Your task to perform on an android device: toggle javascript in the chrome app Image 0: 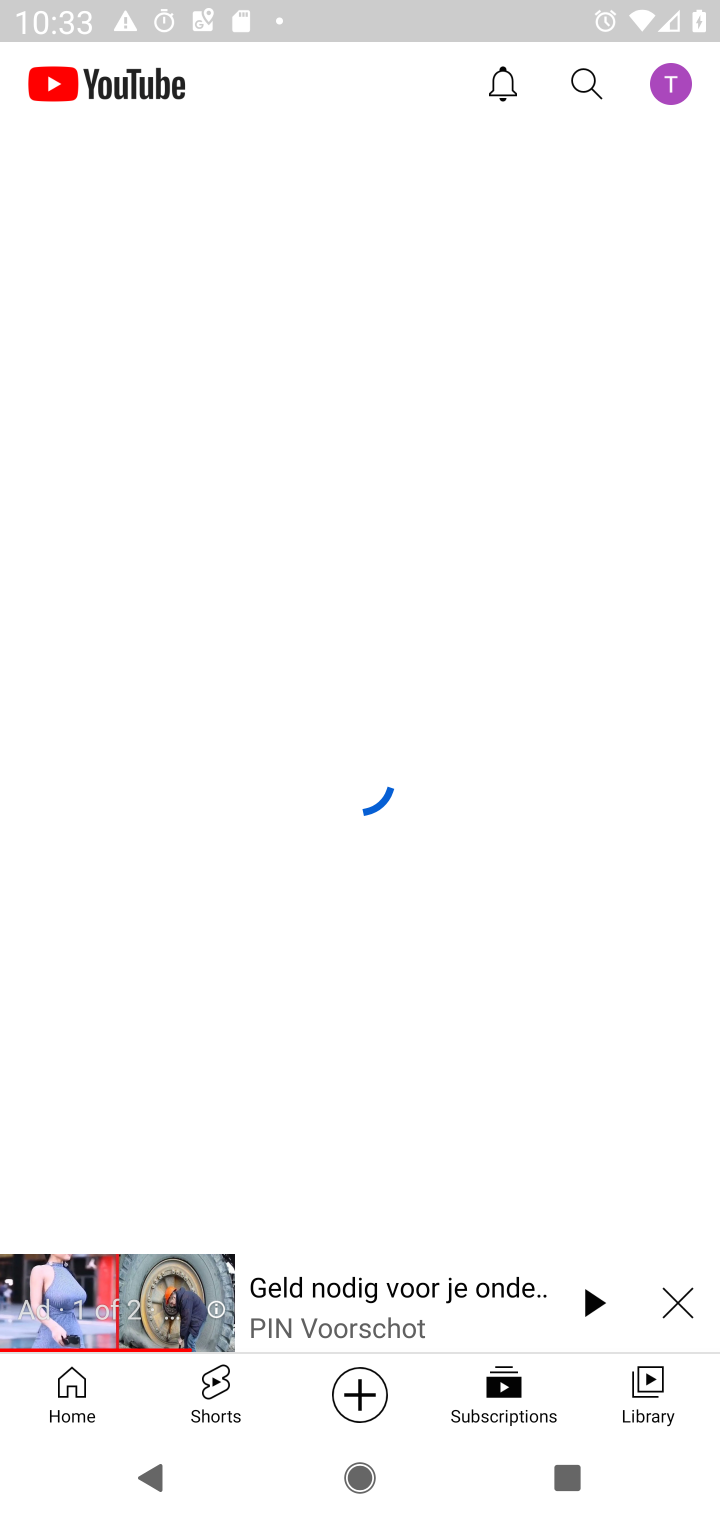
Step 0: press home button
Your task to perform on an android device: toggle javascript in the chrome app Image 1: 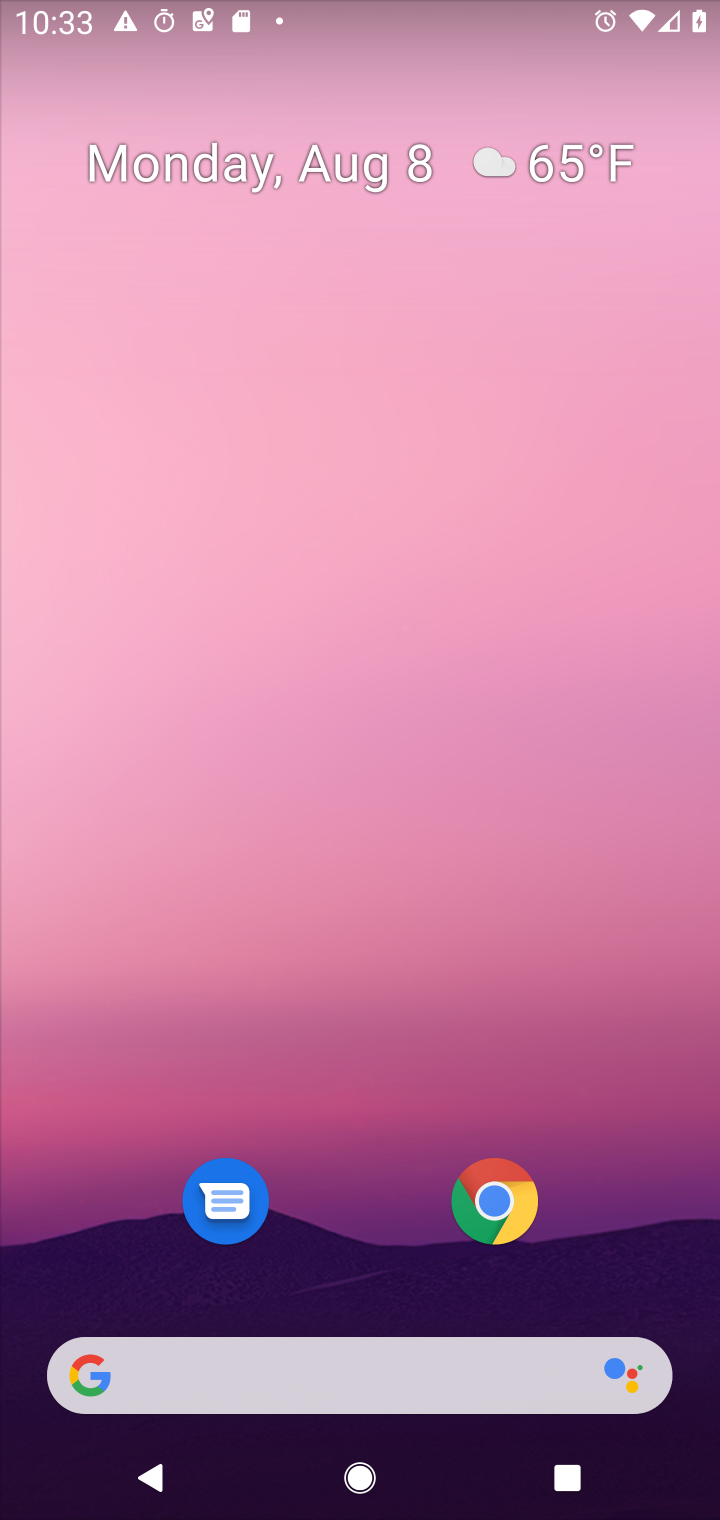
Step 1: drag from (364, 1177) to (362, 474)
Your task to perform on an android device: toggle javascript in the chrome app Image 2: 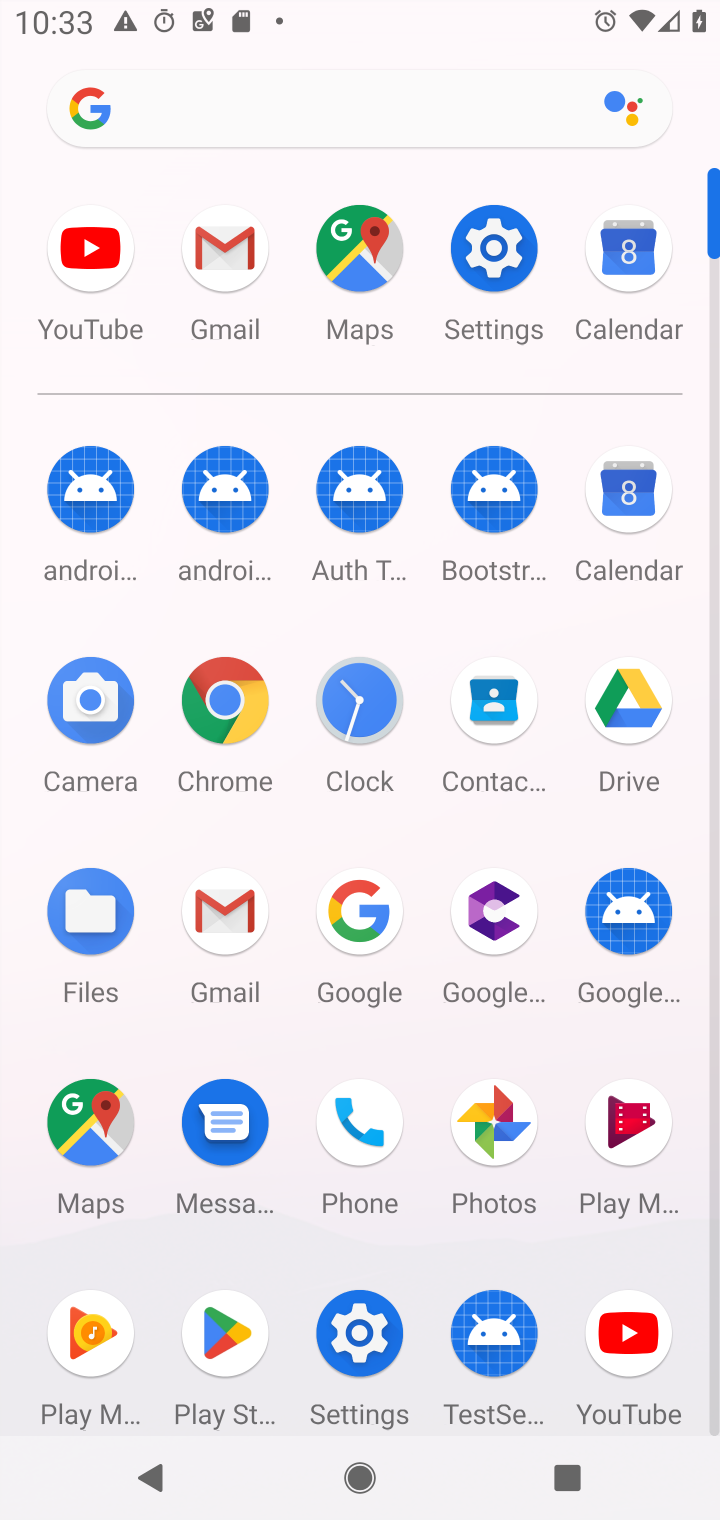
Step 2: click (233, 706)
Your task to perform on an android device: toggle javascript in the chrome app Image 3: 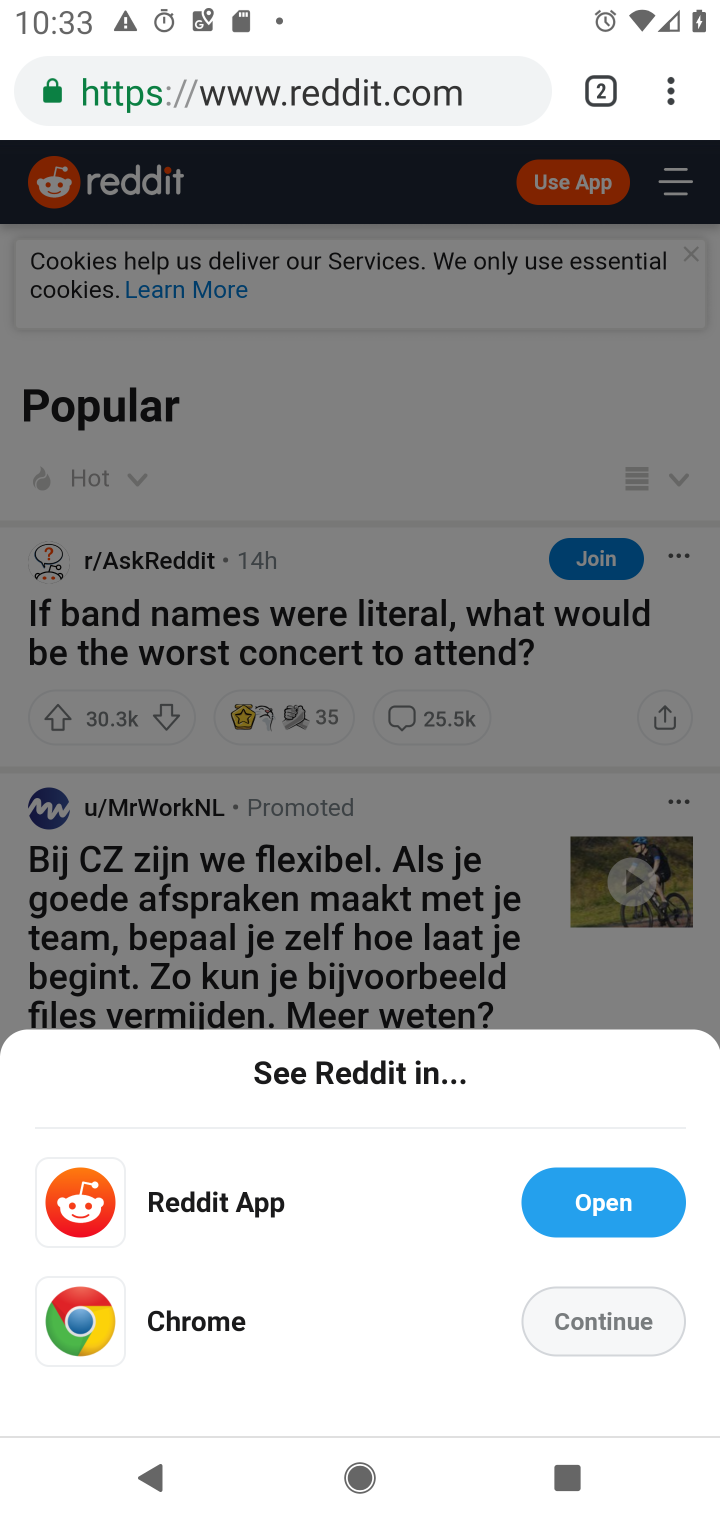
Step 3: click (669, 96)
Your task to perform on an android device: toggle javascript in the chrome app Image 4: 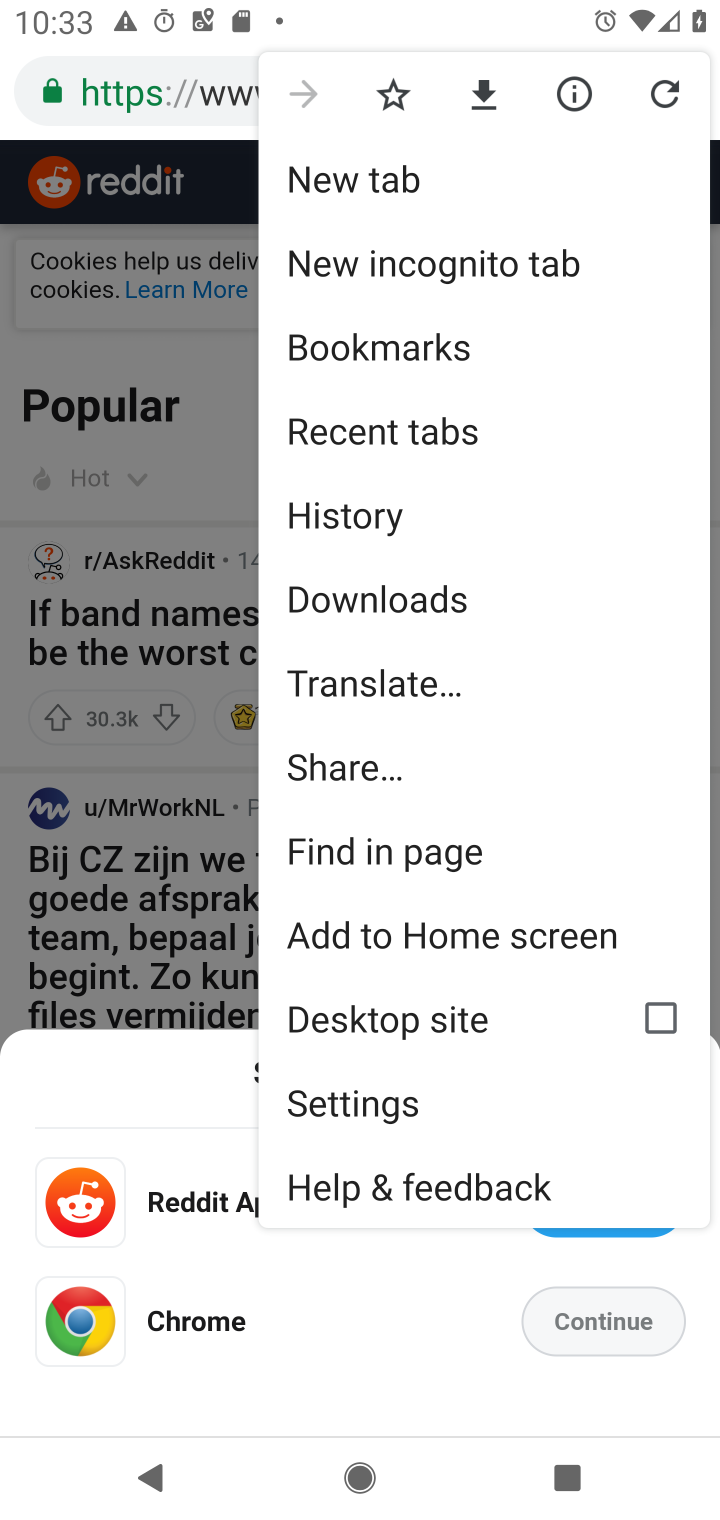
Step 4: click (395, 1096)
Your task to perform on an android device: toggle javascript in the chrome app Image 5: 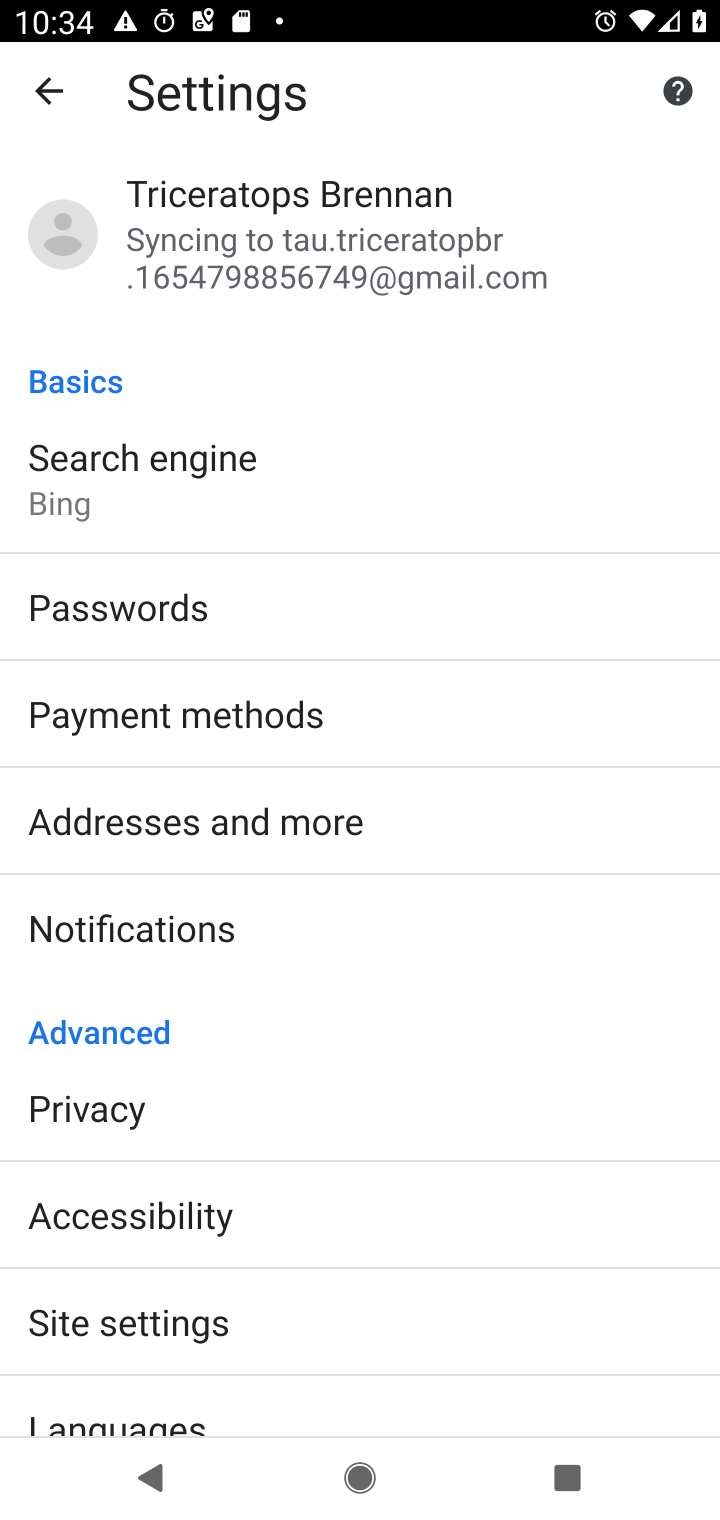
Step 5: click (302, 1323)
Your task to perform on an android device: toggle javascript in the chrome app Image 6: 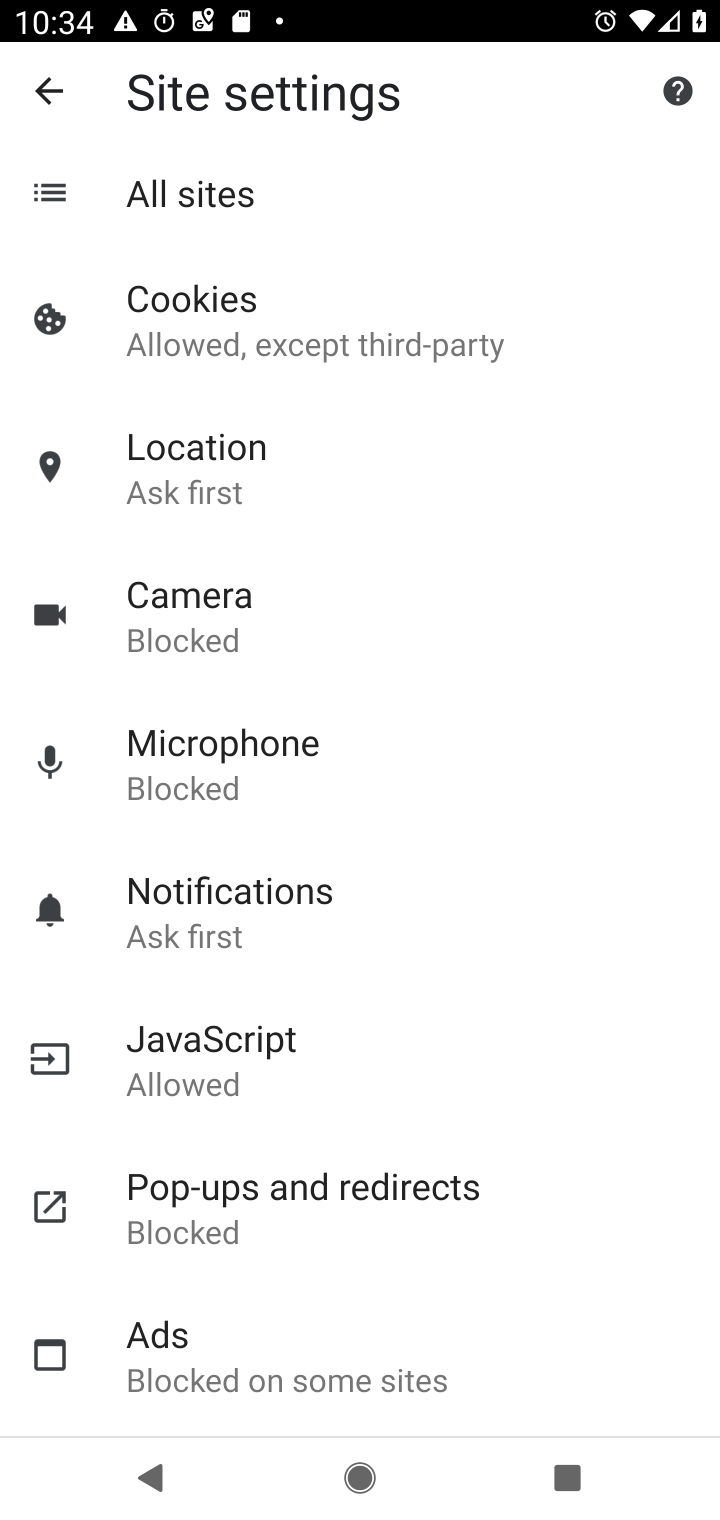
Step 6: click (381, 1038)
Your task to perform on an android device: toggle javascript in the chrome app Image 7: 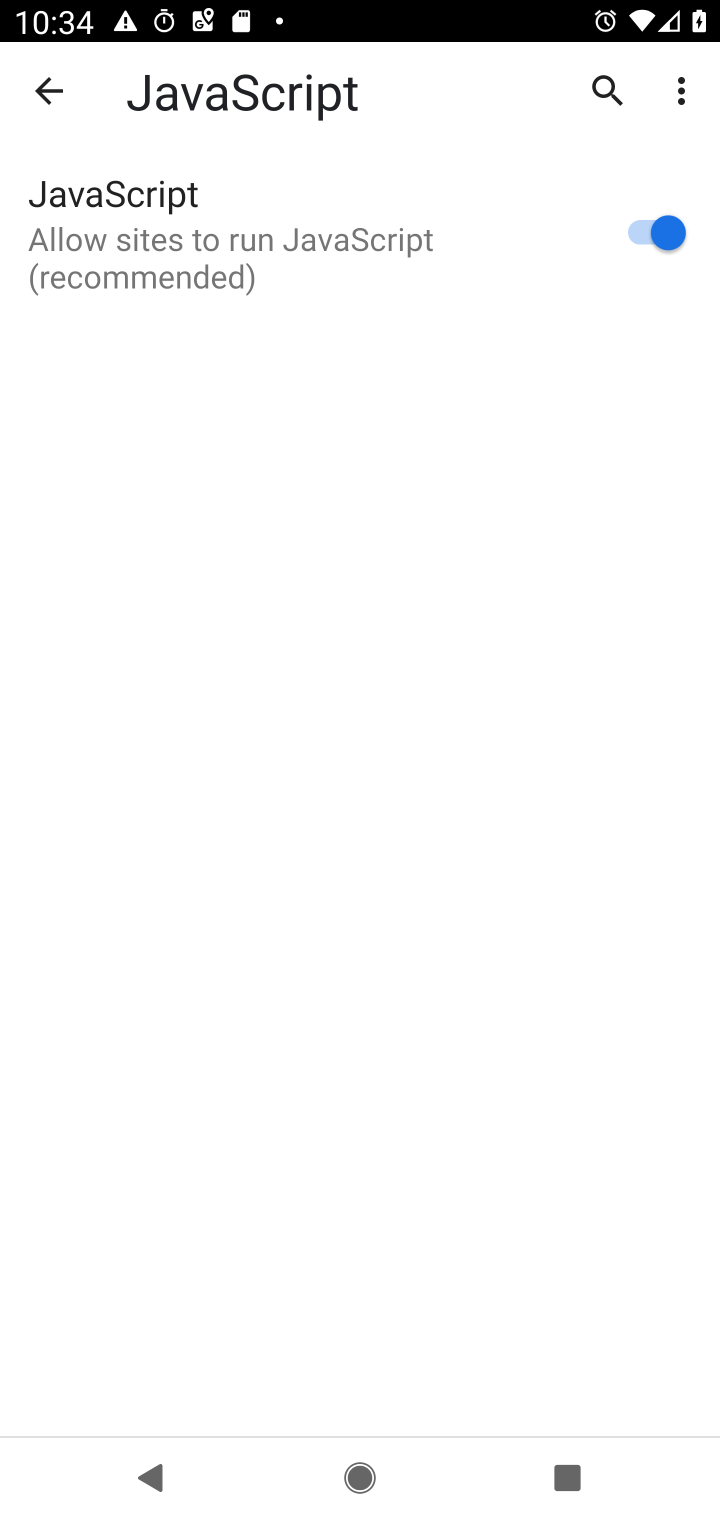
Step 7: click (666, 224)
Your task to perform on an android device: toggle javascript in the chrome app Image 8: 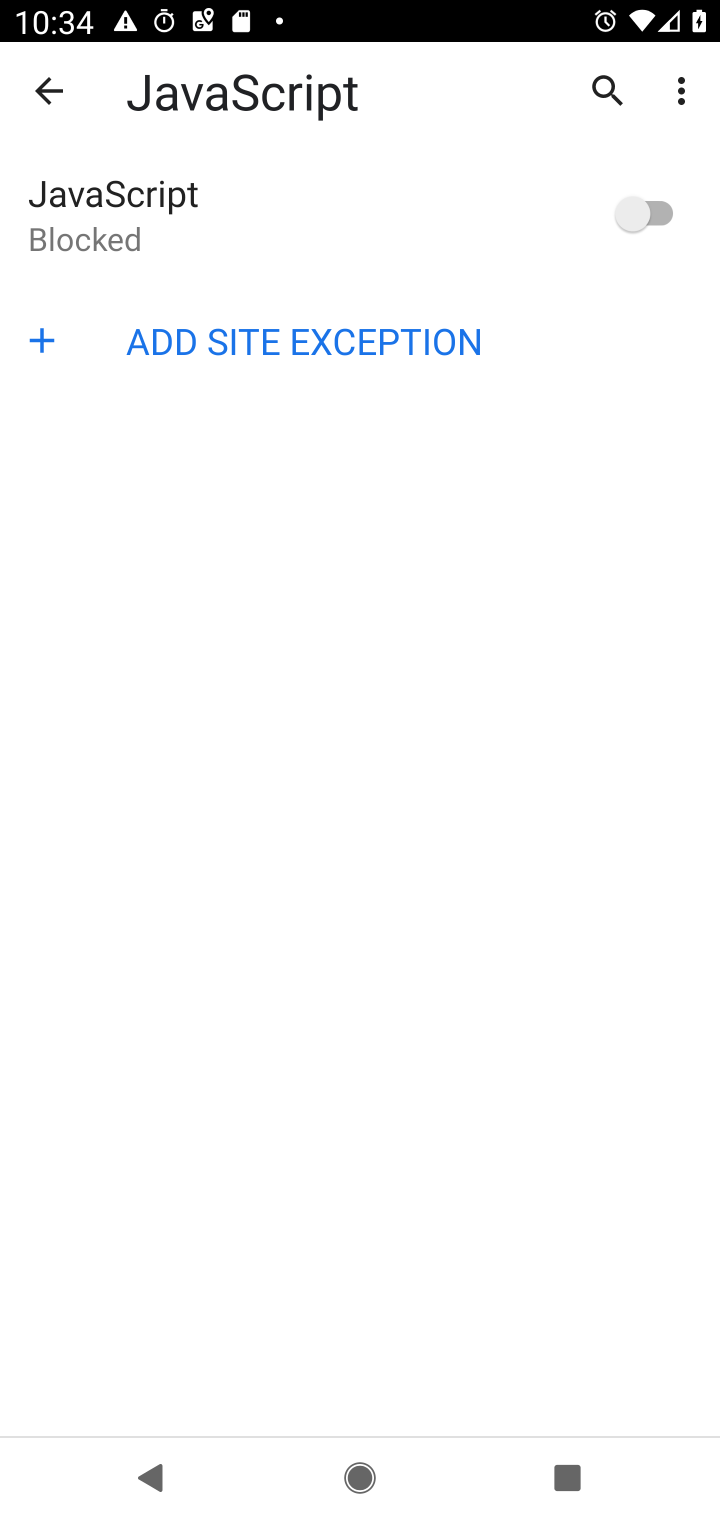
Step 8: task complete